Your task to perform on an android device: Go to network settings Image 0: 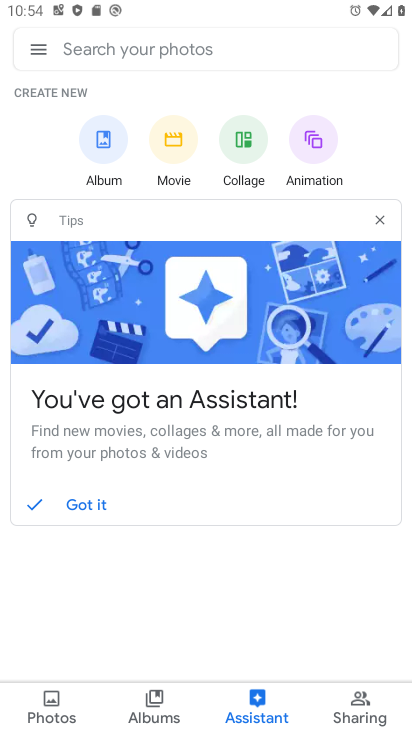
Step 0: press home button
Your task to perform on an android device: Go to network settings Image 1: 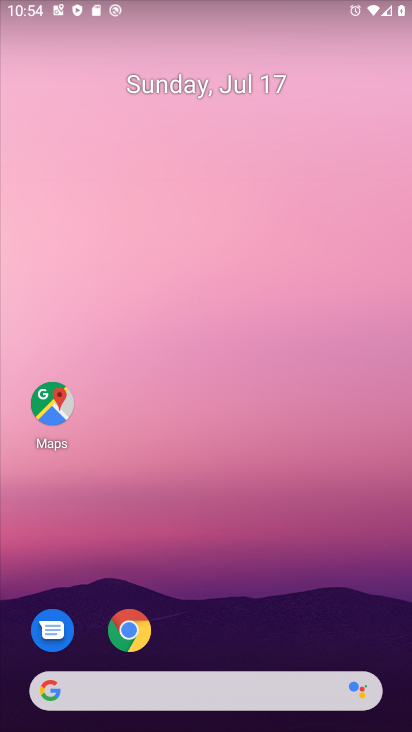
Step 1: drag from (310, 603) to (317, 64)
Your task to perform on an android device: Go to network settings Image 2: 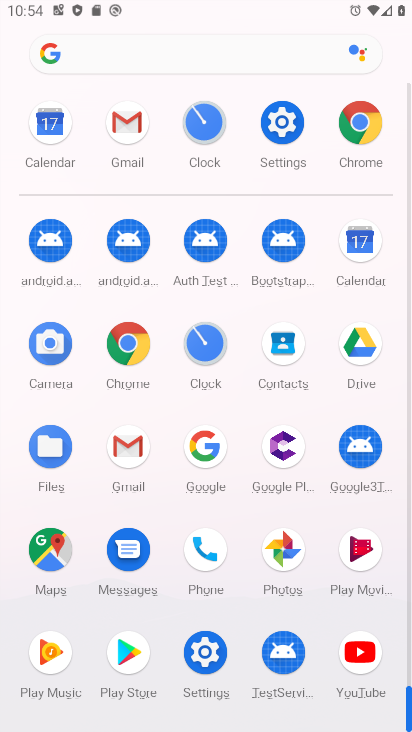
Step 2: click (292, 130)
Your task to perform on an android device: Go to network settings Image 3: 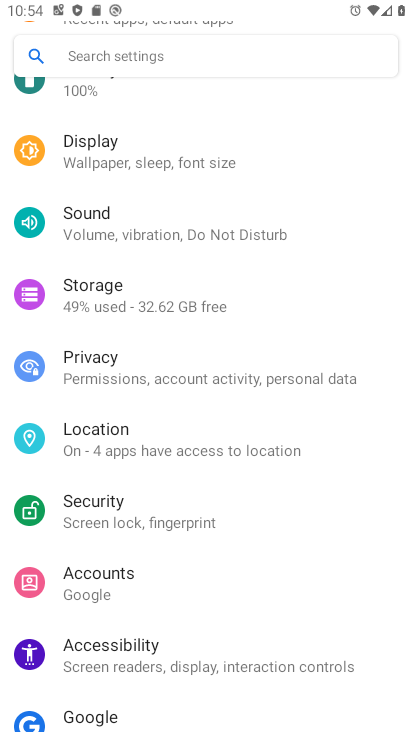
Step 3: drag from (348, 481) to (362, 357)
Your task to perform on an android device: Go to network settings Image 4: 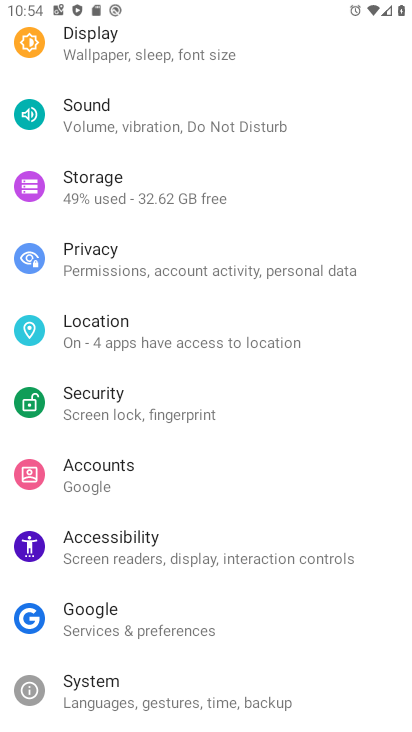
Step 4: drag from (357, 626) to (363, 410)
Your task to perform on an android device: Go to network settings Image 5: 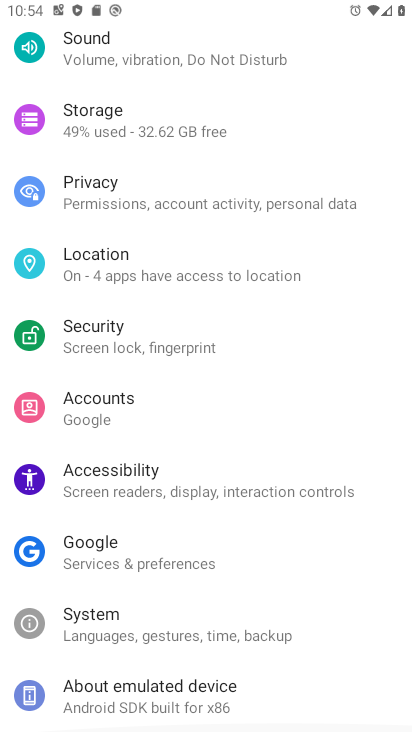
Step 5: drag from (356, 322) to (363, 446)
Your task to perform on an android device: Go to network settings Image 6: 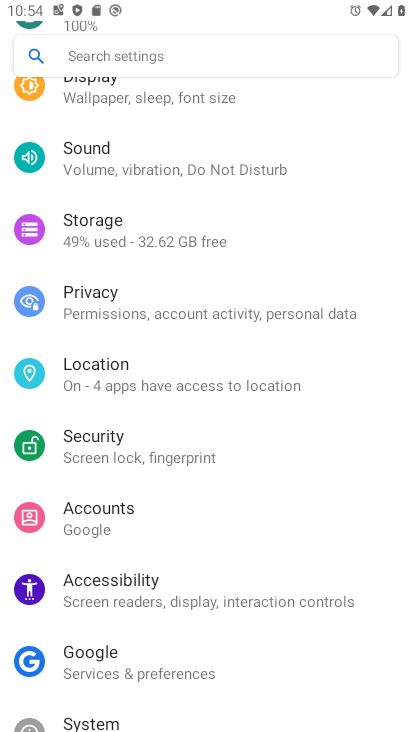
Step 6: drag from (363, 337) to (374, 430)
Your task to perform on an android device: Go to network settings Image 7: 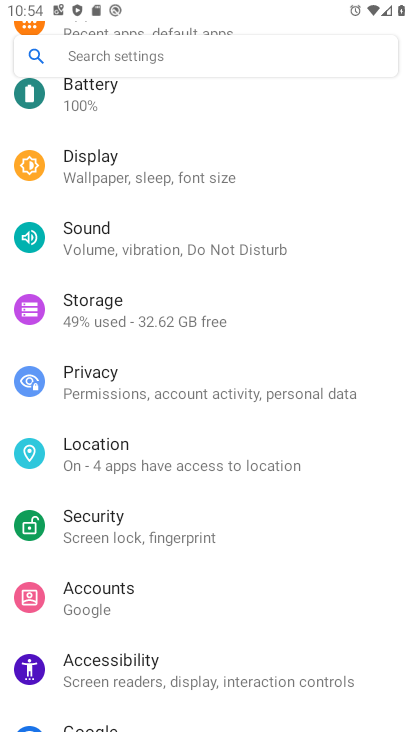
Step 7: drag from (370, 273) to (368, 486)
Your task to perform on an android device: Go to network settings Image 8: 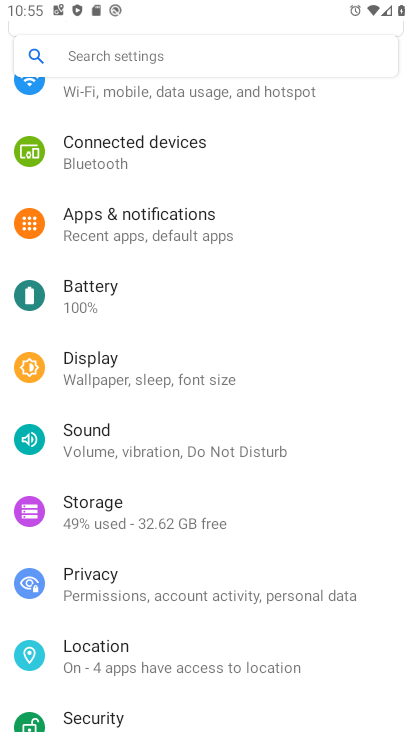
Step 8: drag from (358, 224) to (365, 364)
Your task to perform on an android device: Go to network settings Image 9: 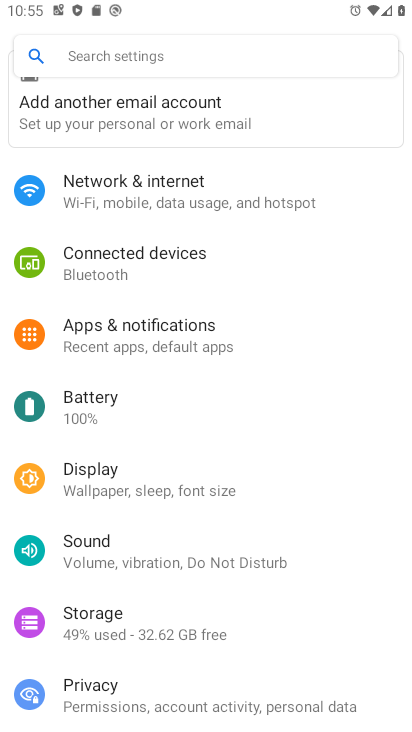
Step 9: drag from (348, 217) to (339, 462)
Your task to perform on an android device: Go to network settings Image 10: 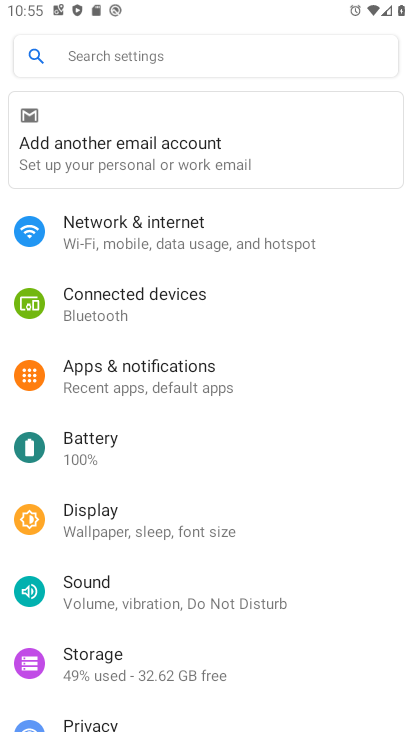
Step 10: click (262, 234)
Your task to perform on an android device: Go to network settings Image 11: 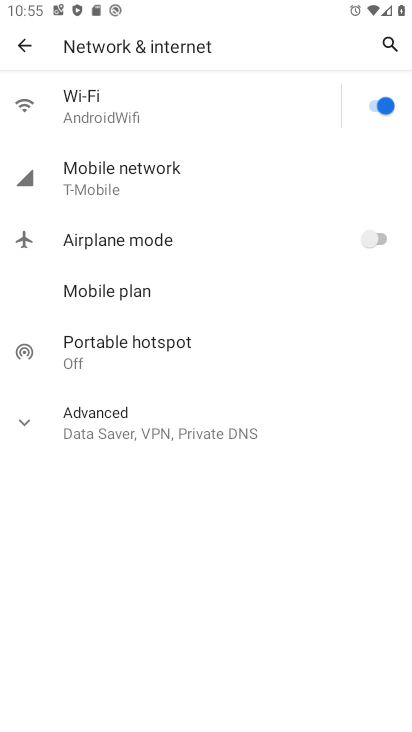
Step 11: task complete